Your task to perform on an android device: check out phone information Image 0: 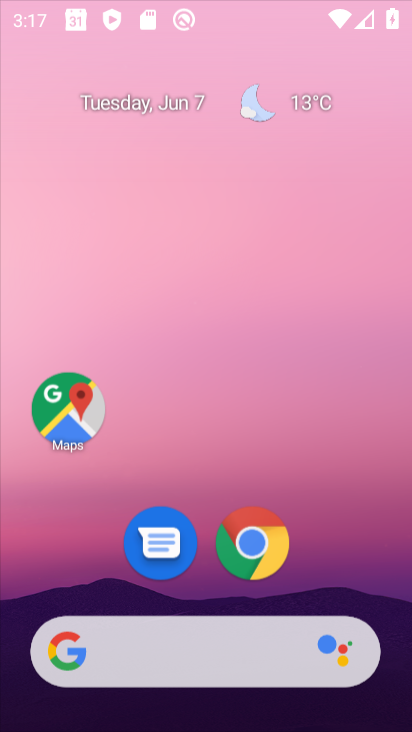
Step 0: press home button
Your task to perform on an android device: check out phone information Image 1: 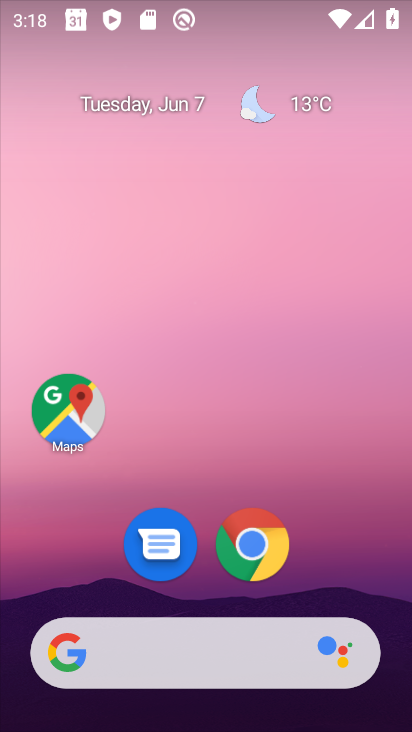
Step 1: drag from (212, 589) to (241, 2)
Your task to perform on an android device: check out phone information Image 2: 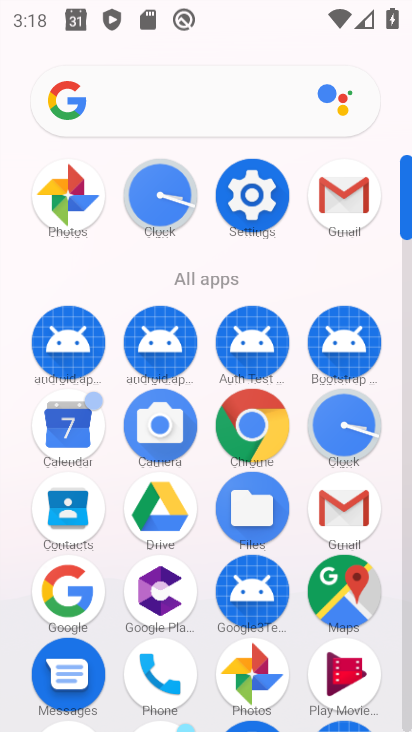
Step 2: drag from (209, 639) to (191, 388)
Your task to perform on an android device: check out phone information Image 3: 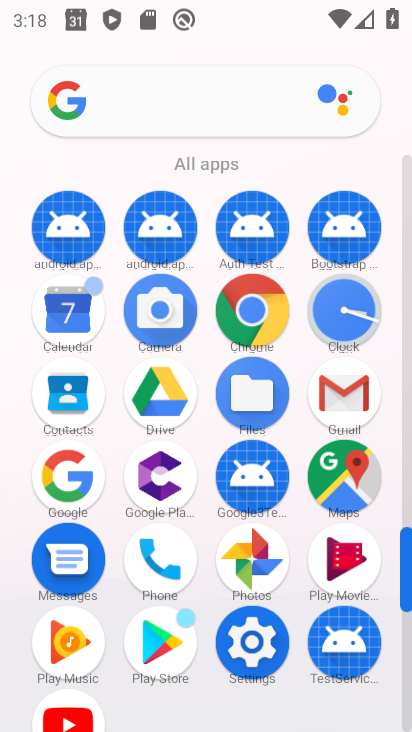
Step 3: drag from (198, 226) to (227, 133)
Your task to perform on an android device: check out phone information Image 4: 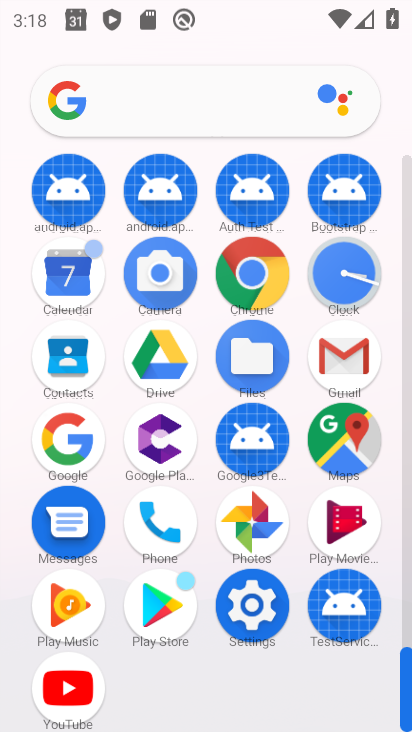
Step 4: click (248, 597)
Your task to perform on an android device: check out phone information Image 5: 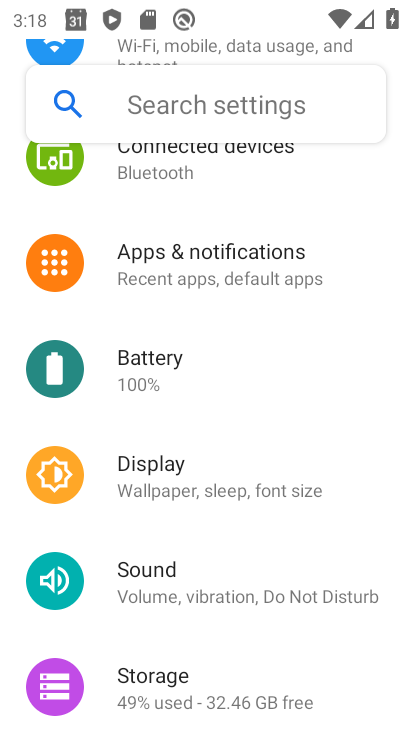
Step 5: drag from (222, 665) to (294, 93)
Your task to perform on an android device: check out phone information Image 6: 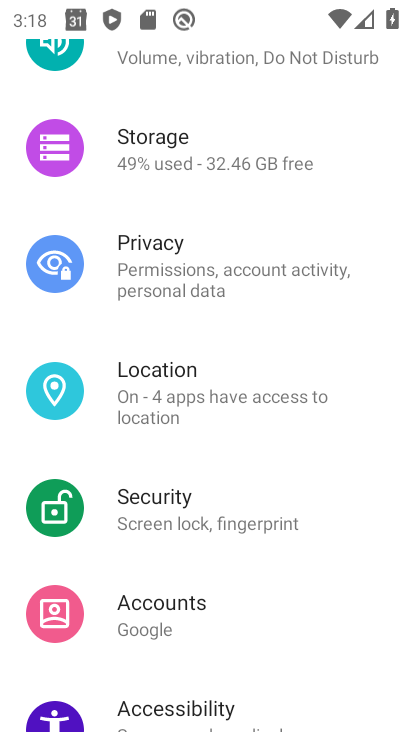
Step 6: drag from (230, 676) to (246, 132)
Your task to perform on an android device: check out phone information Image 7: 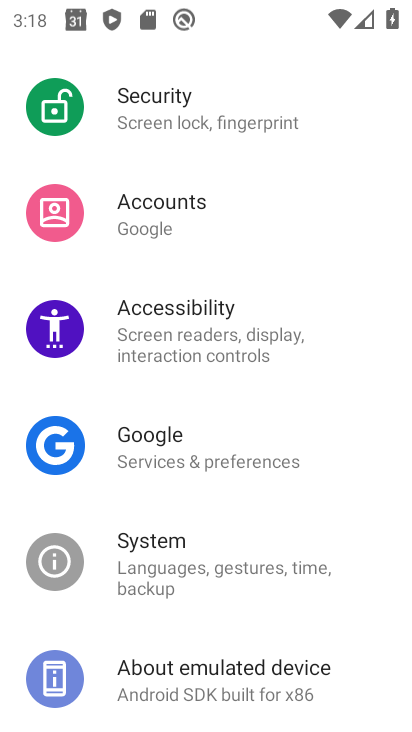
Step 7: click (263, 683)
Your task to perform on an android device: check out phone information Image 8: 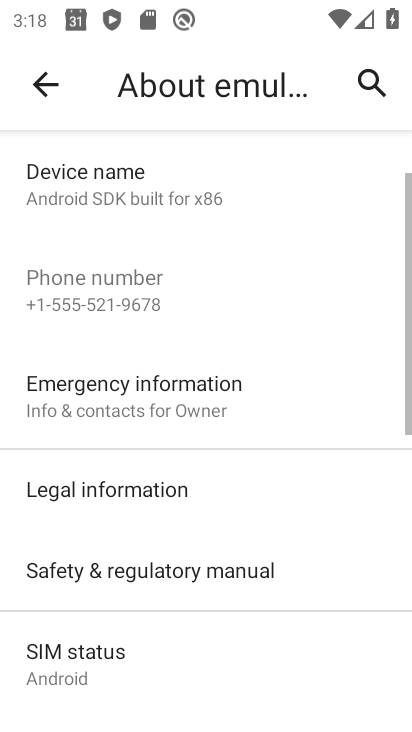
Step 8: task complete